Your task to perform on an android device: Open wifi settings Image 0: 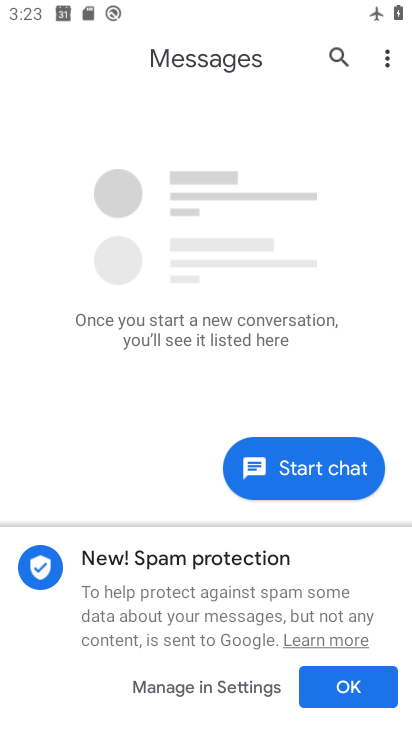
Step 0: press home button
Your task to perform on an android device: Open wifi settings Image 1: 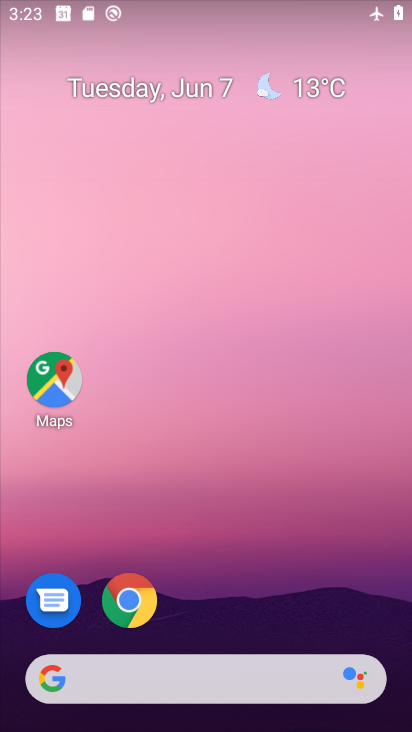
Step 1: drag from (292, 581) to (323, 114)
Your task to perform on an android device: Open wifi settings Image 2: 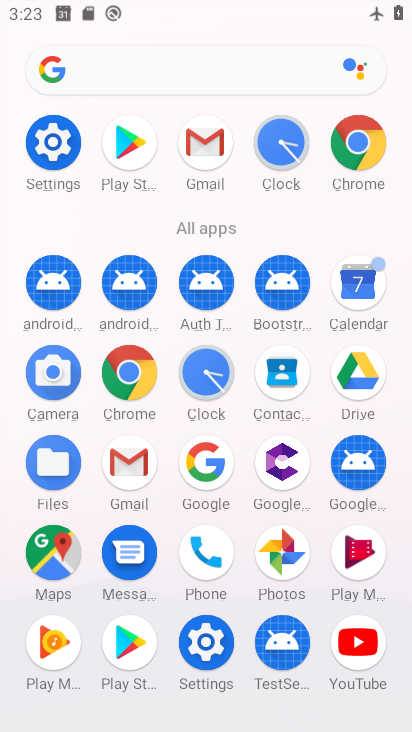
Step 2: click (61, 138)
Your task to perform on an android device: Open wifi settings Image 3: 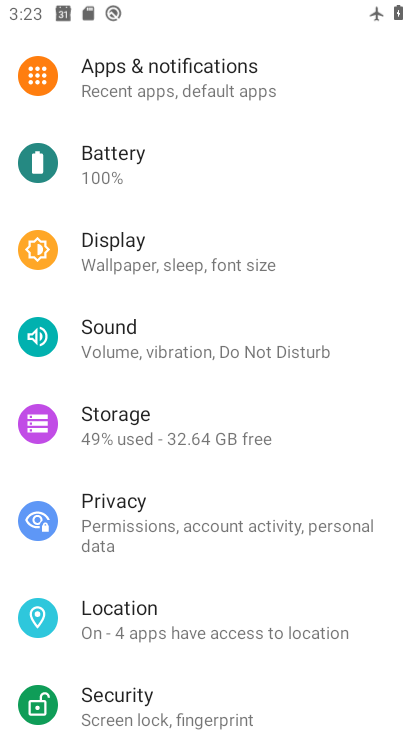
Step 3: drag from (274, 223) to (266, 698)
Your task to perform on an android device: Open wifi settings Image 4: 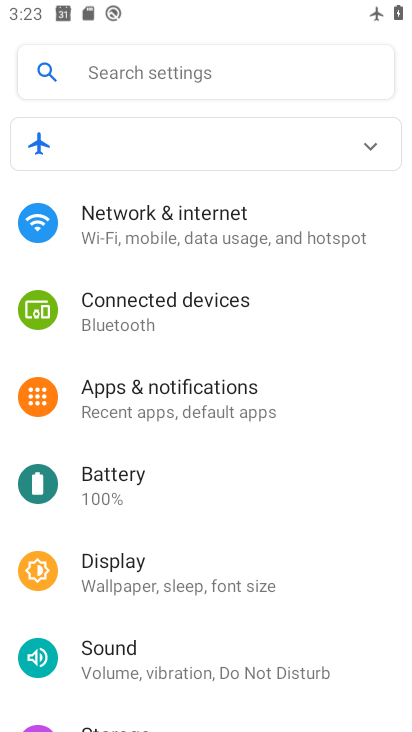
Step 4: click (208, 224)
Your task to perform on an android device: Open wifi settings Image 5: 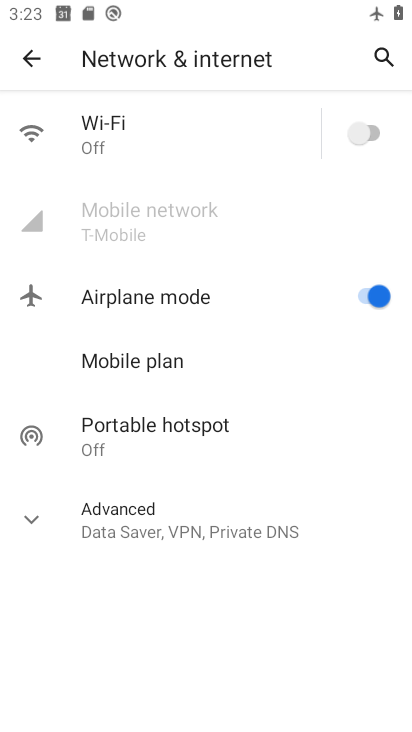
Step 5: click (232, 143)
Your task to perform on an android device: Open wifi settings Image 6: 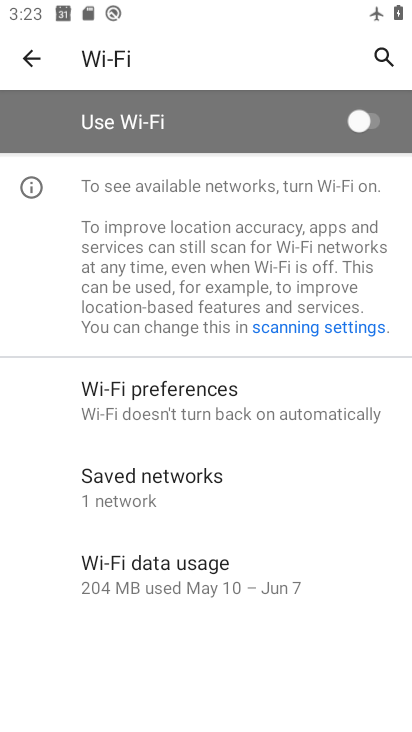
Step 6: click (315, 130)
Your task to perform on an android device: Open wifi settings Image 7: 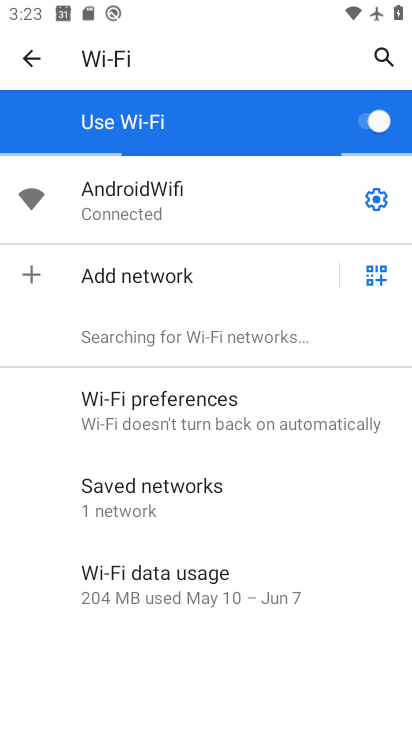
Step 7: click (379, 187)
Your task to perform on an android device: Open wifi settings Image 8: 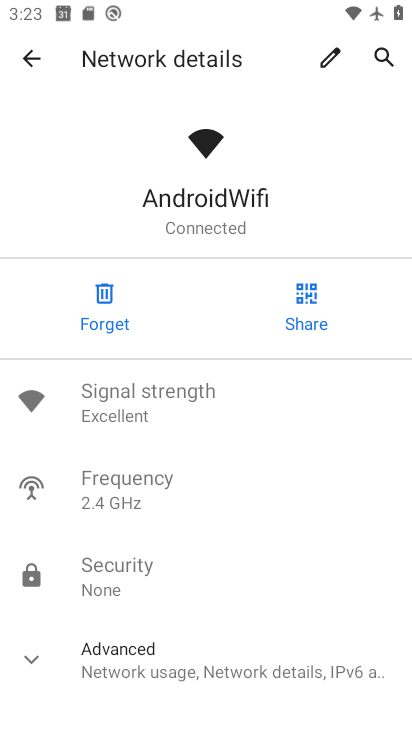
Step 8: task complete